Your task to perform on an android device: check the backup settings in the google photos Image 0: 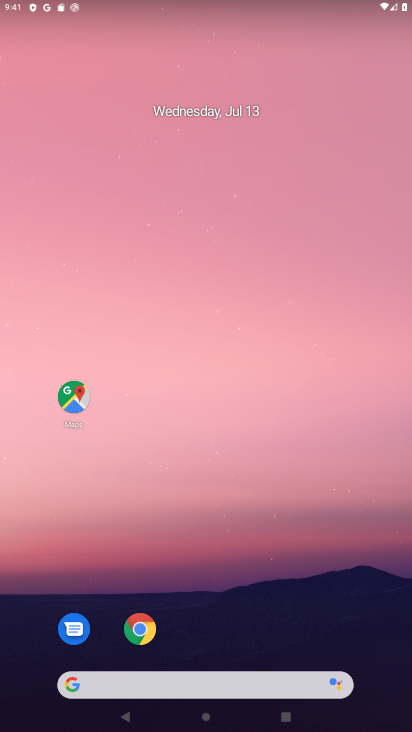
Step 0: drag from (299, 612) to (248, 187)
Your task to perform on an android device: check the backup settings in the google photos Image 1: 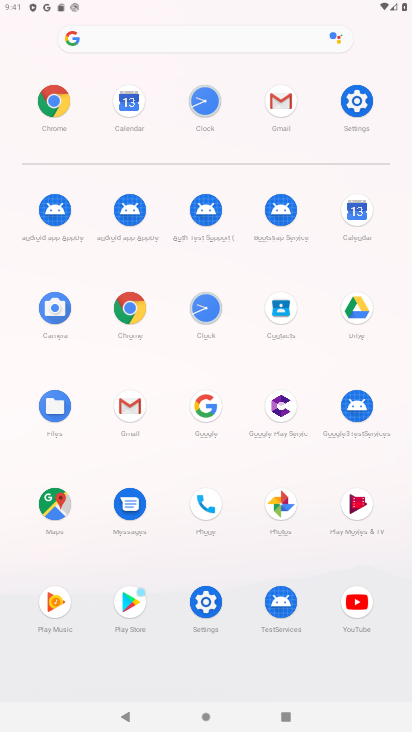
Step 1: click (283, 501)
Your task to perform on an android device: check the backup settings in the google photos Image 2: 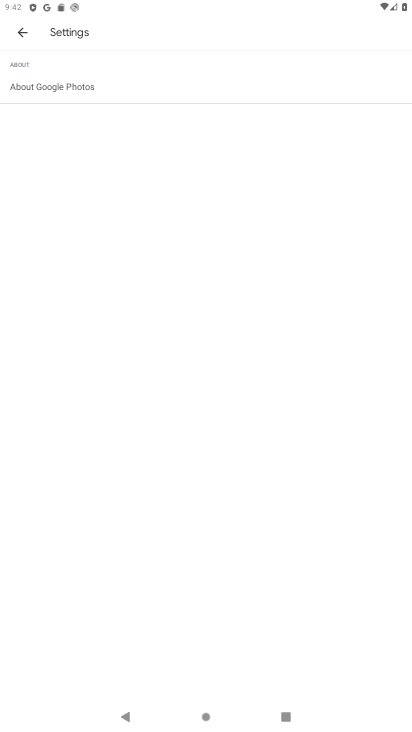
Step 2: click (24, 39)
Your task to perform on an android device: check the backup settings in the google photos Image 3: 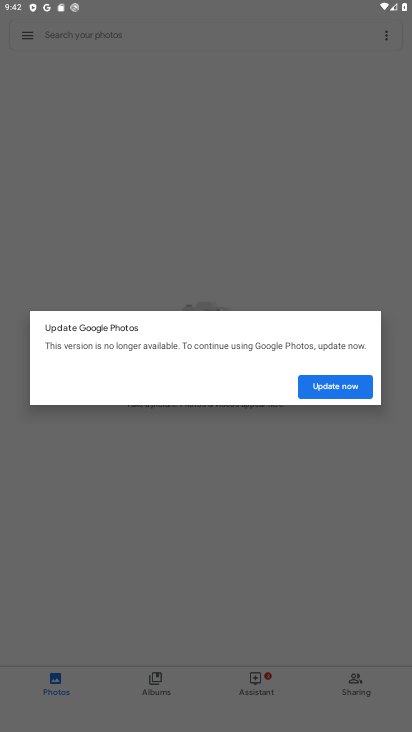
Step 3: click (323, 383)
Your task to perform on an android device: check the backup settings in the google photos Image 4: 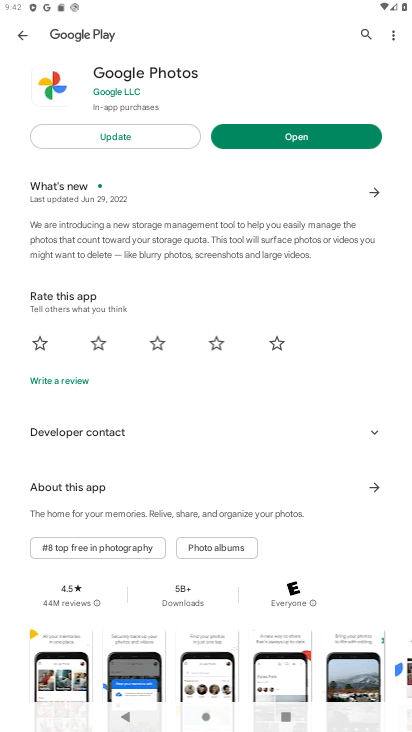
Step 4: click (133, 125)
Your task to perform on an android device: check the backup settings in the google photos Image 5: 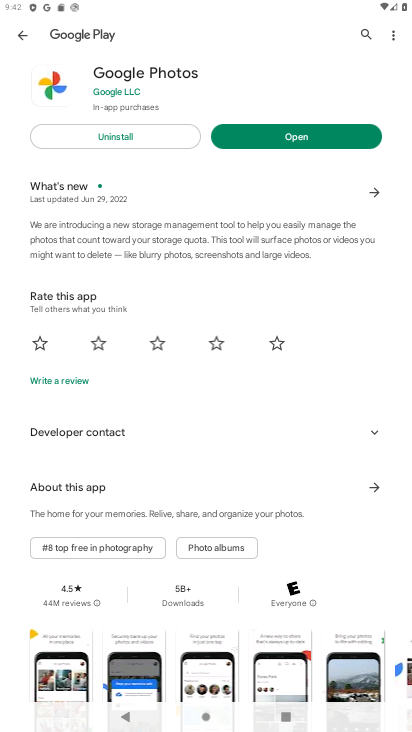
Step 5: click (297, 147)
Your task to perform on an android device: check the backup settings in the google photos Image 6: 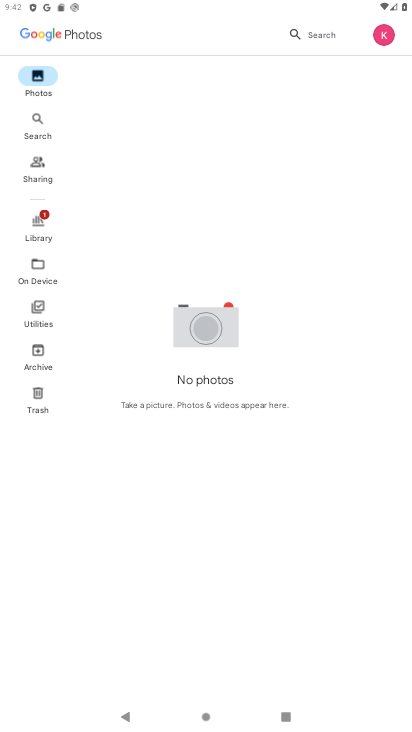
Step 6: click (388, 39)
Your task to perform on an android device: check the backup settings in the google photos Image 7: 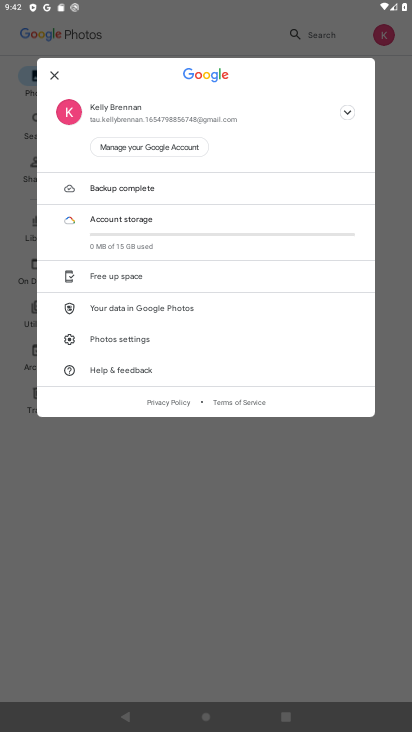
Step 7: click (199, 340)
Your task to perform on an android device: check the backup settings in the google photos Image 8: 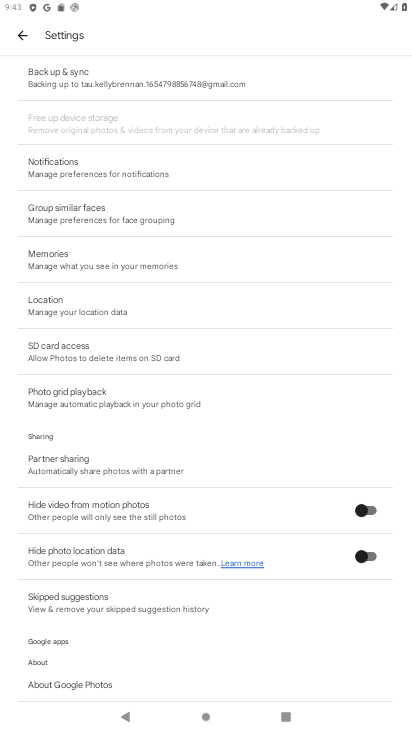
Step 8: task complete